Your task to perform on an android device: Do I have any events tomorrow? Image 0: 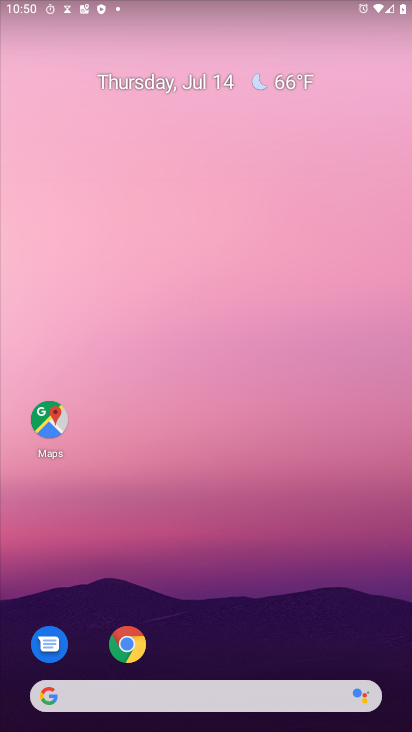
Step 0: drag from (263, 684) to (188, 128)
Your task to perform on an android device: Do I have any events tomorrow? Image 1: 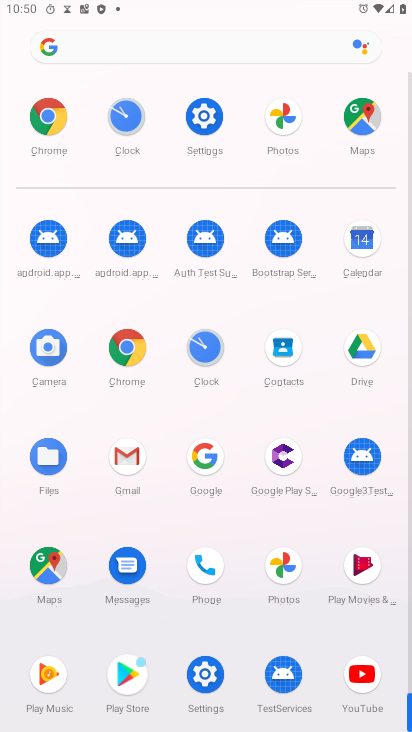
Step 1: click (53, 119)
Your task to perform on an android device: Do I have any events tomorrow? Image 2: 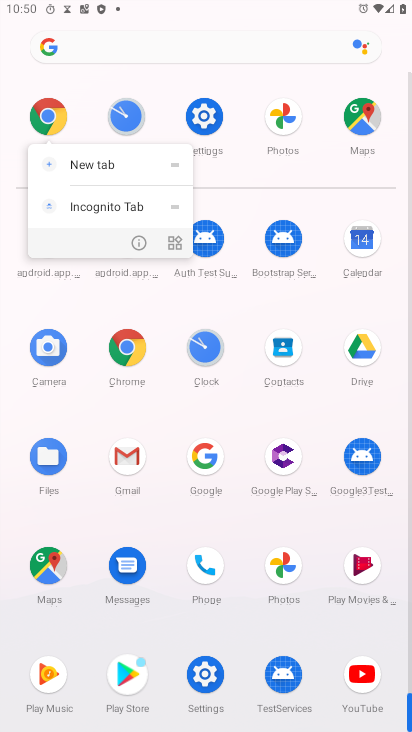
Step 2: click (359, 230)
Your task to perform on an android device: Do I have any events tomorrow? Image 3: 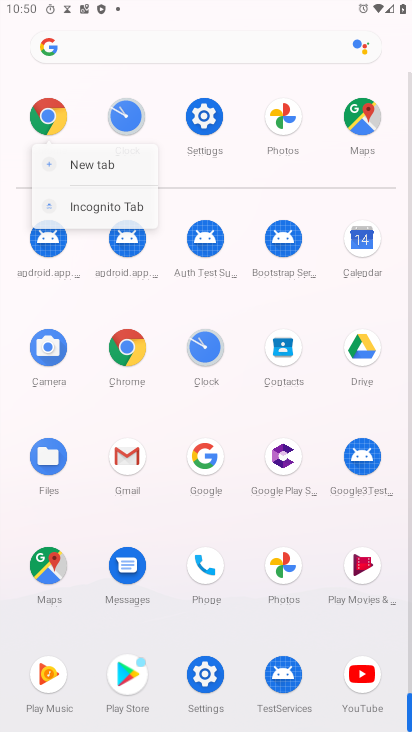
Step 3: click (359, 230)
Your task to perform on an android device: Do I have any events tomorrow? Image 4: 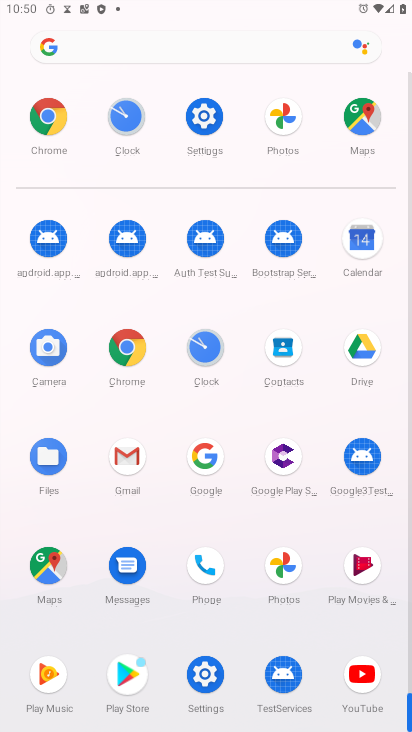
Step 4: click (359, 230)
Your task to perform on an android device: Do I have any events tomorrow? Image 5: 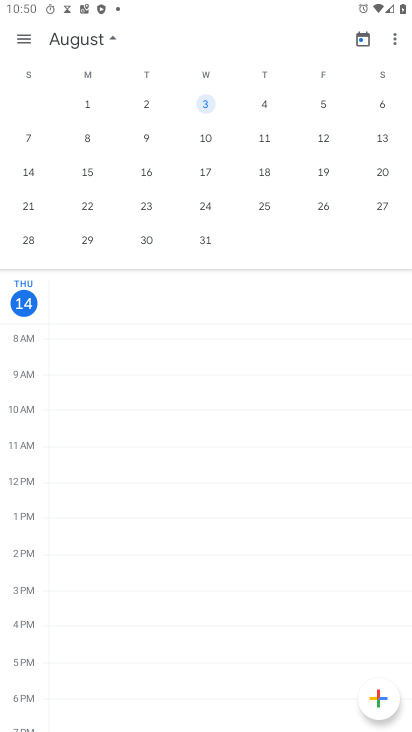
Step 5: drag from (150, 170) to (380, 196)
Your task to perform on an android device: Do I have any events tomorrow? Image 6: 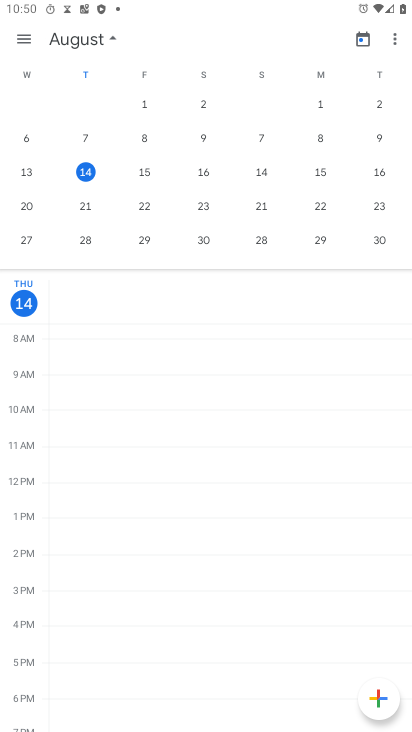
Step 6: drag from (229, 196) to (408, 178)
Your task to perform on an android device: Do I have any events tomorrow? Image 7: 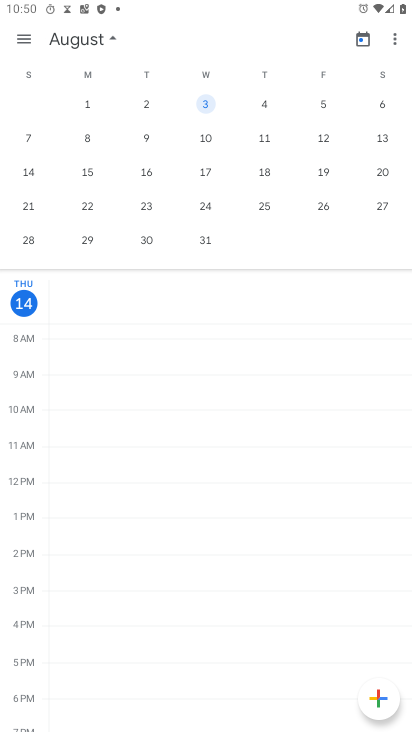
Step 7: drag from (127, 202) to (362, 186)
Your task to perform on an android device: Do I have any events tomorrow? Image 8: 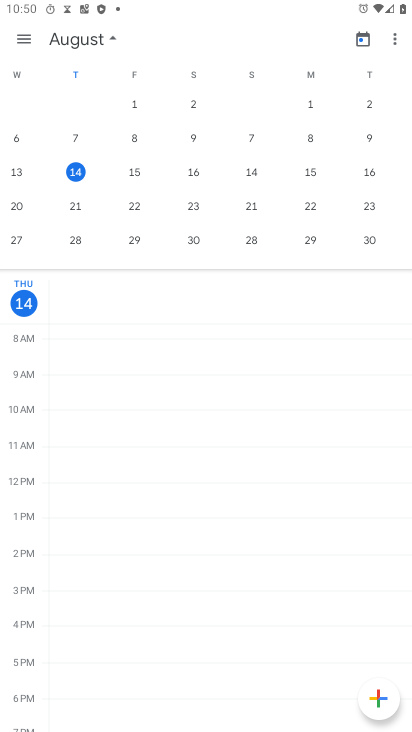
Step 8: drag from (150, 212) to (361, 134)
Your task to perform on an android device: Do I have any events tomorrow? Image 9: 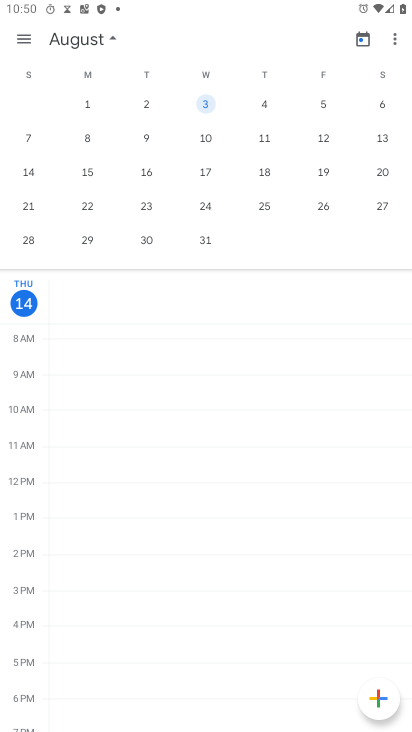
Step 9: drag from (27, 190) to (297, 125)
Your task to perform on an android device: Do I have any events tomorrow? Image 10: 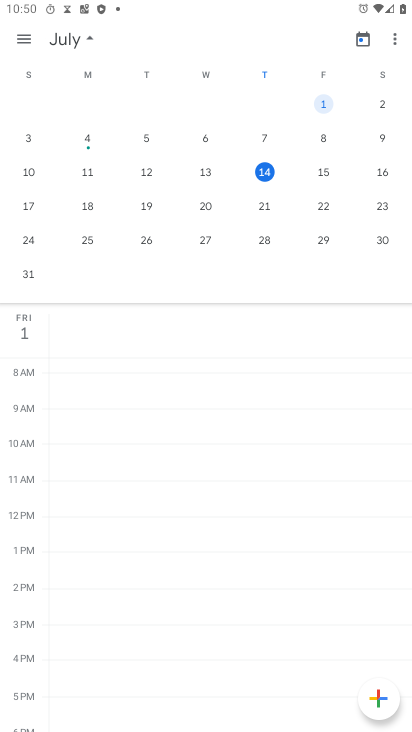
Step 10: click (319, 172)
Your task to perform on an android device: Do I have any events tomorrow? Image 11: 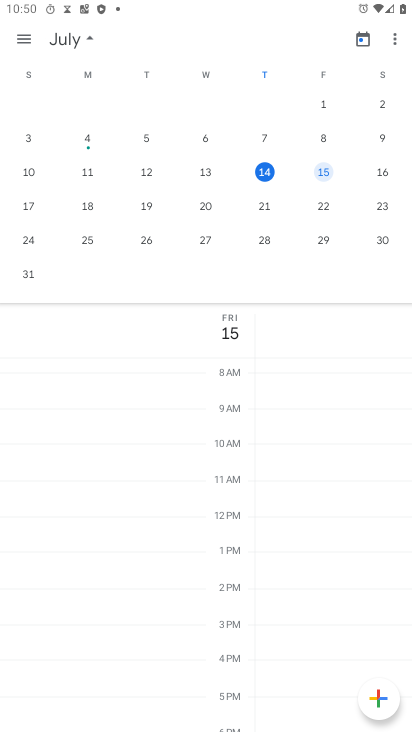
Step 11: click (321, 170)
Your task to perform on an android device: Do I have any events tomorrow? Image 12: 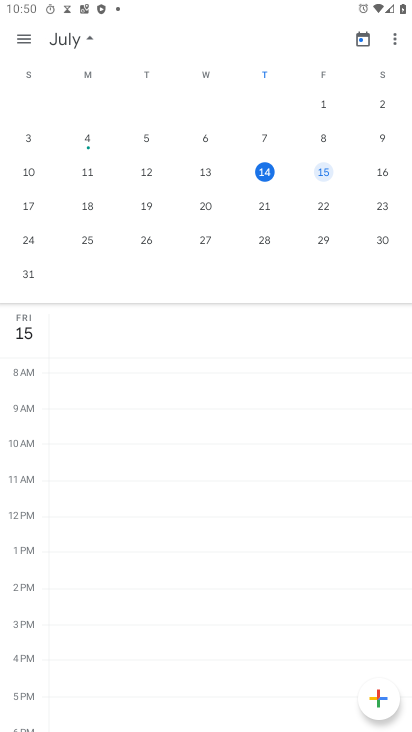
Step 12: click (325, 172)
Your task to perform on an android device: Do I have any events tomorrow? Image 13: 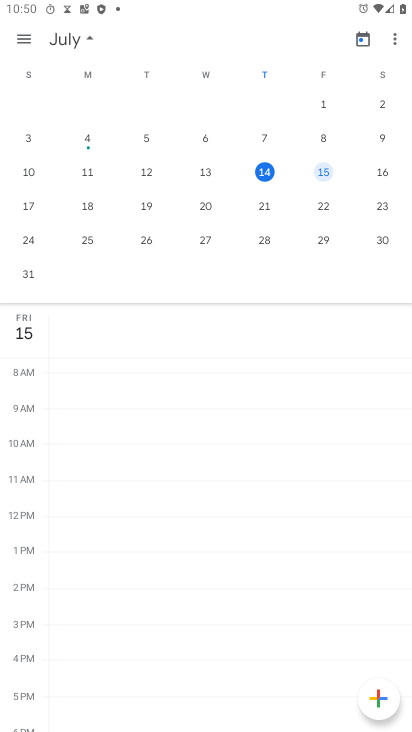
Step 13: click (326, 172)
Your task to perform on an android device: Do I have any events tomorrow? Image 14: 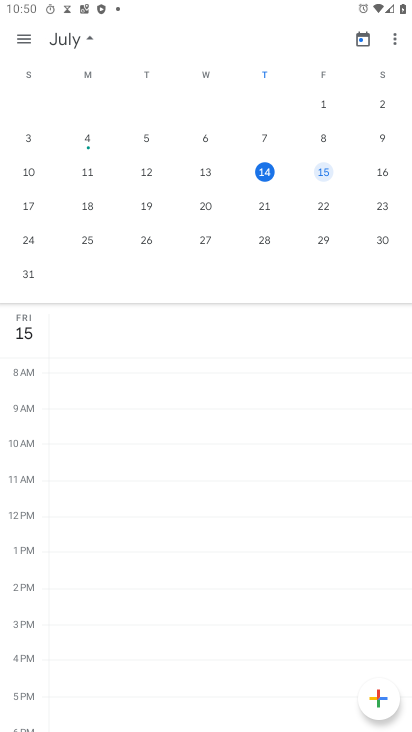
Step 14: click (391, 170)
Your task to perform on an android device: Do I have any events tomorrow? Image 15: 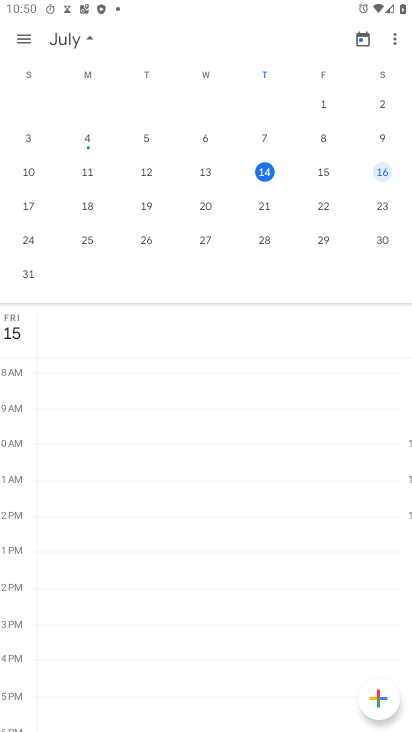
Step 15: click (391, 171)
Your task to perform on an android device: Do I have any events tomorrow? Image 16: 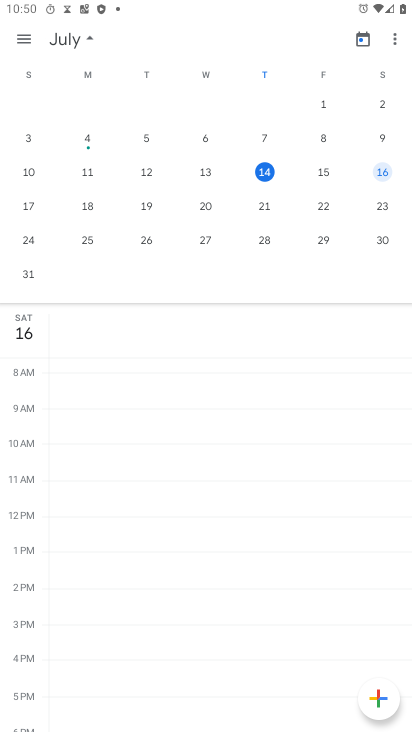
Step 16: click (391, 171)
Your task to perform on an android device: Do I have any events tomorrow? Image 17: 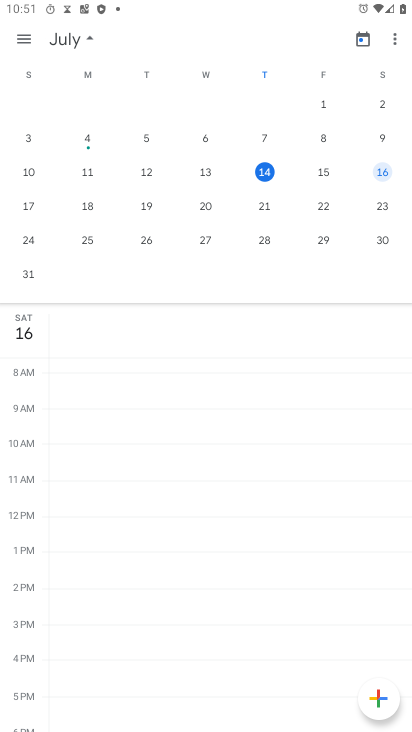
Step 17: task complete